Your task to perform on an android device: Clear the cart on target. Search for lenovo thinkpad on target, select the first entry, and add it to the cart. Image 0: 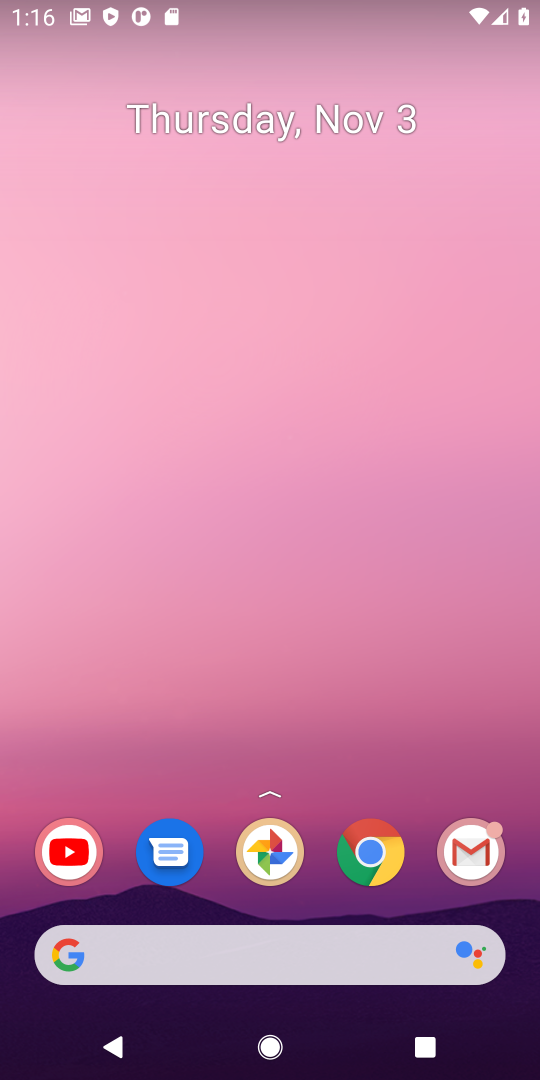
Step 0: click (372, 851)
Your task to perform on an android device: Clear the cart on target. Search for lenovo thinkpad on target, select the first entry, and add it to the cart. Image 1: 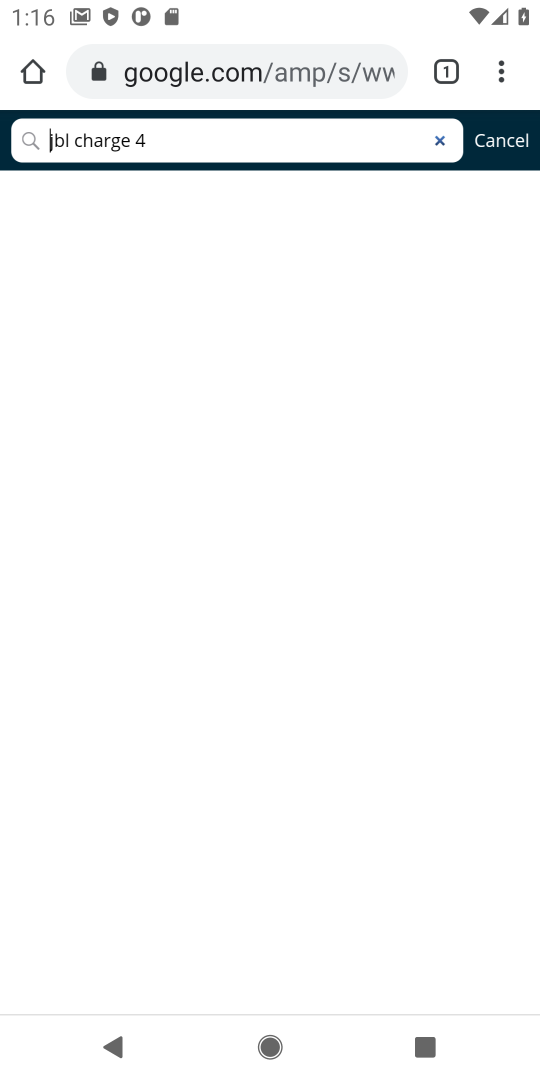
Step 1: click (209, 81)
Your task to perform on an android device: Clear the cart on target. Search for lenovo thinkpad on target, select the first entry, and add it to the cart. Image 2: 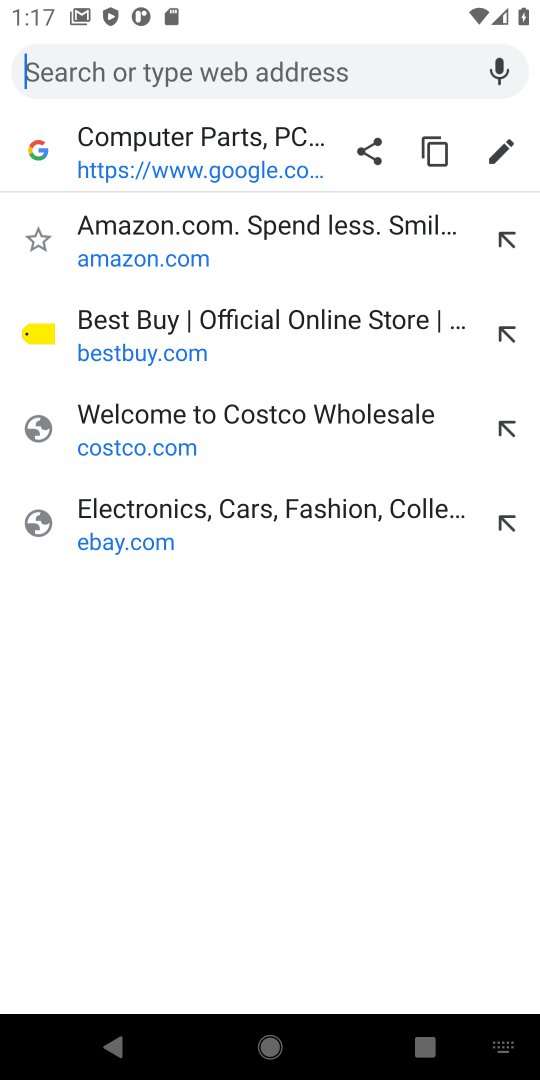
Step 2: type "target.com"
Your task to perform on an android device: Clear the cart on target. Search for lenovo thinkpad on target, select the first entry, and add it to the cart. Image 3: 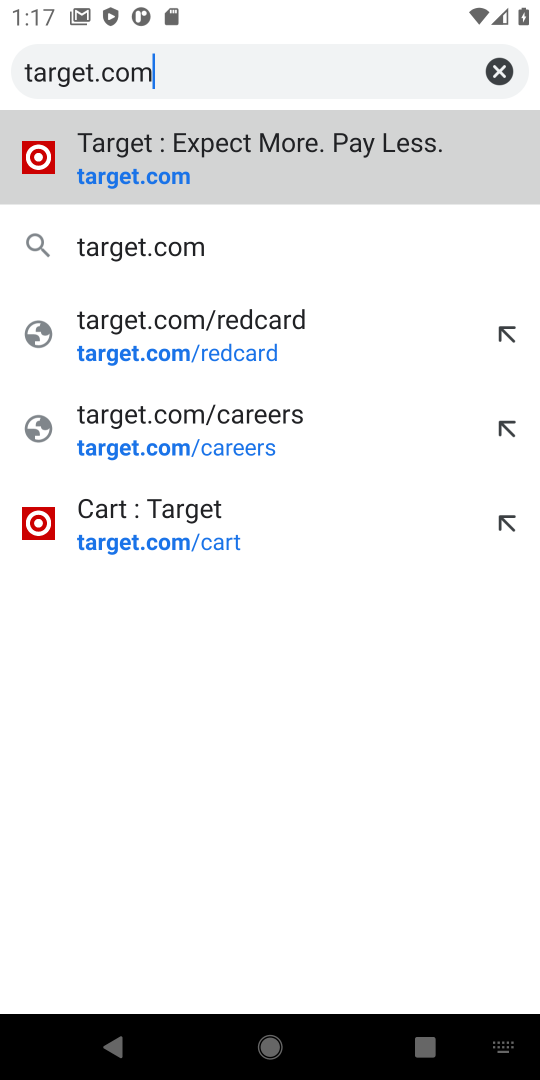
Step 3: click (150, 180)
Your task to perform on an android device: Clear the cart on target. Search for lenovo thinkpad on target, select the first entry, and add it to the cart. Image 4: 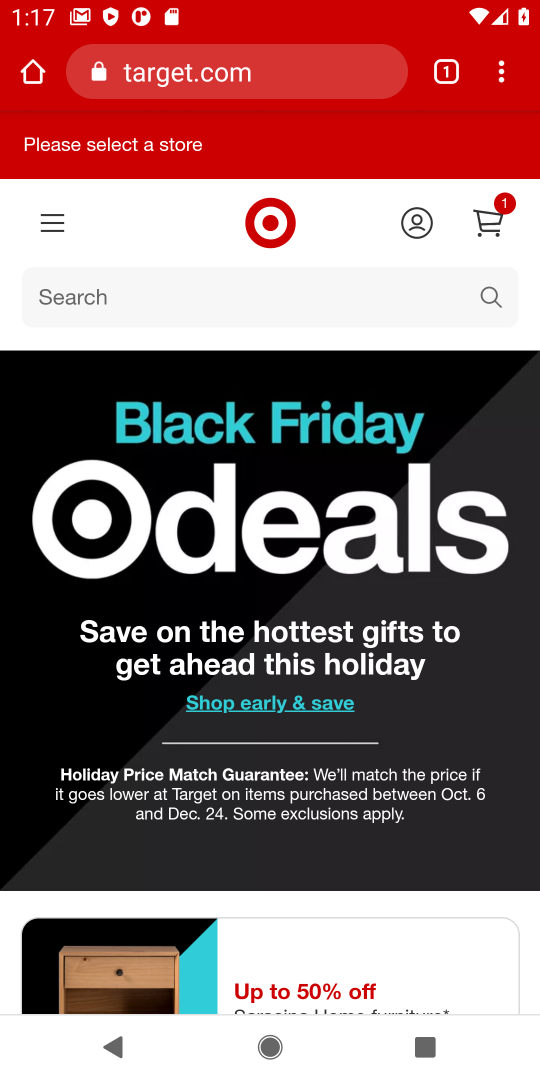
Step 4: click (486, 224)
Your task to perform on an android device: Clear the cart on target. Search for lenovo thinkpad on target, select the first entry, and add it to the cart. Image 5: 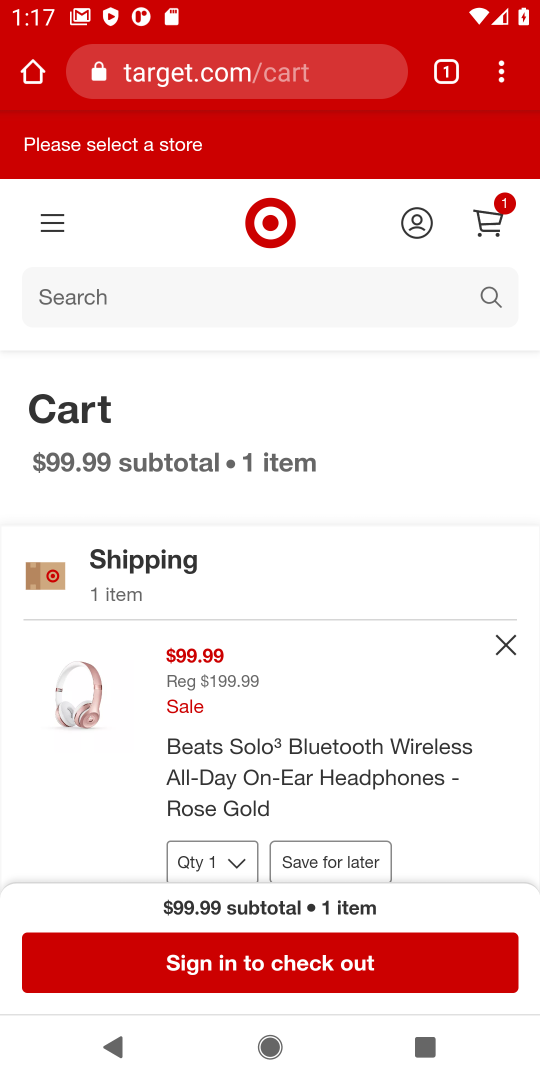
Step 5: click (505, 645)
Your task to perform on an android device: Clear the cart on target. Search for lenovo thinkpad on target, select the first entry, and add it to the cart. Image 6: 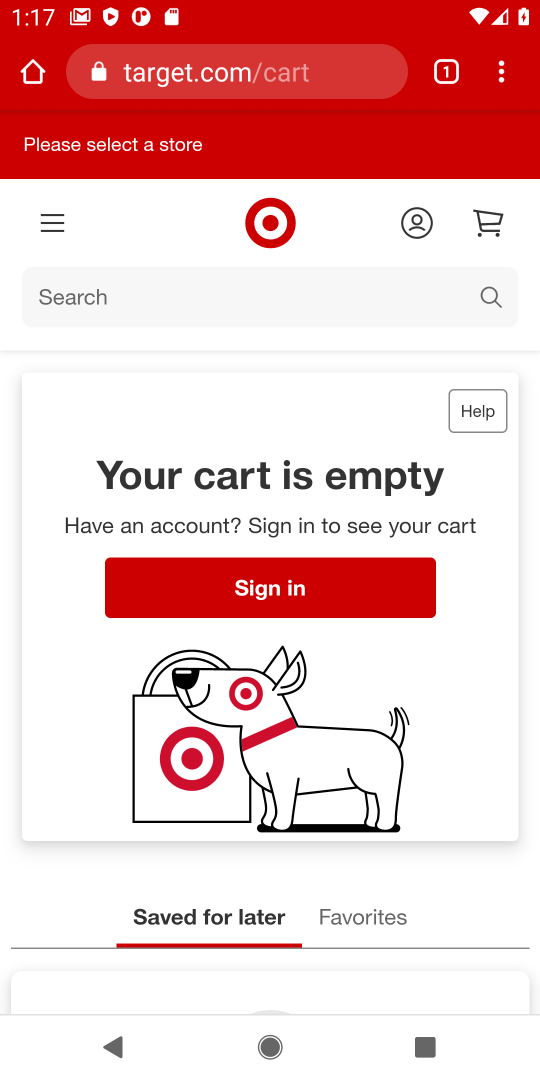
Step 6: click (439, 301)
Your task to perform on an android device: Clear the cart on target. Search for lenovo thinkpad on target, select the first entry, and add it to the cart. Image 7: 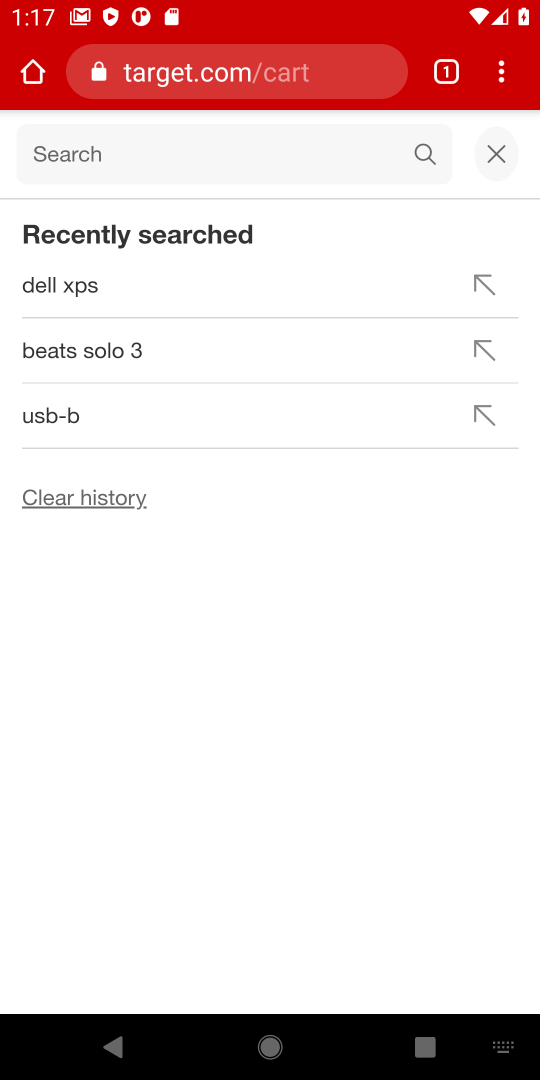
Step 7: type "lenovo thinkpad"
Your task to perform on an android device: Clear the cart on target. Search for lenovo thinkpad on target, select the first entry, and add it to the cart. Image 8: 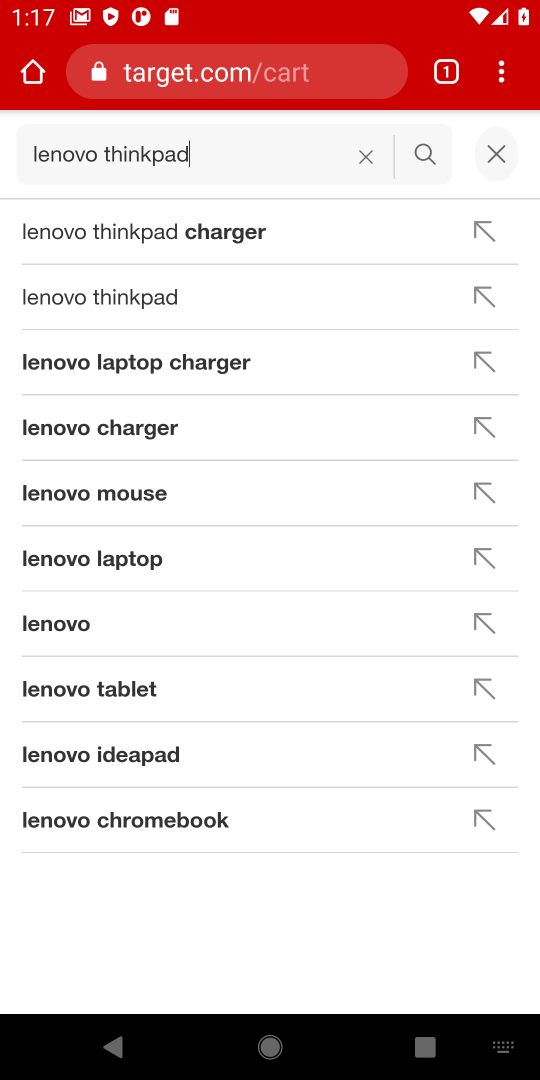
Step 8: click (139, 295)
Your task to perform on an android device: Clear the cart on target. Search for lenovo thinkpad on target, select the first entry, and add it to the cart. Image 9: 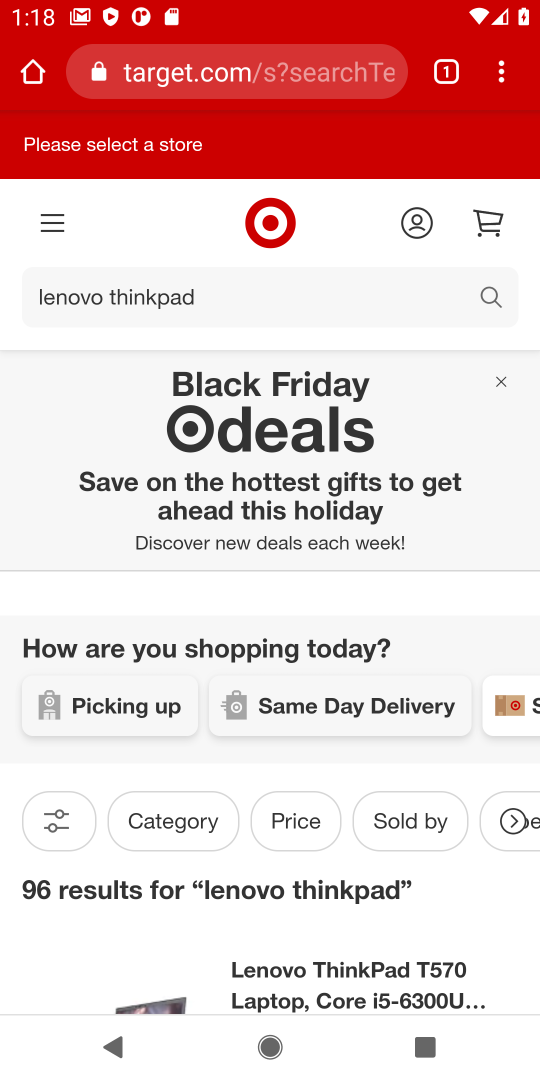
Step 9: drag from (305, 607) to (303, 385)
Your task to perform on an android device: Clear the cart on target. Search for lenovo thinkpad on target, select the first entry, and add it to the cart. Image 10: 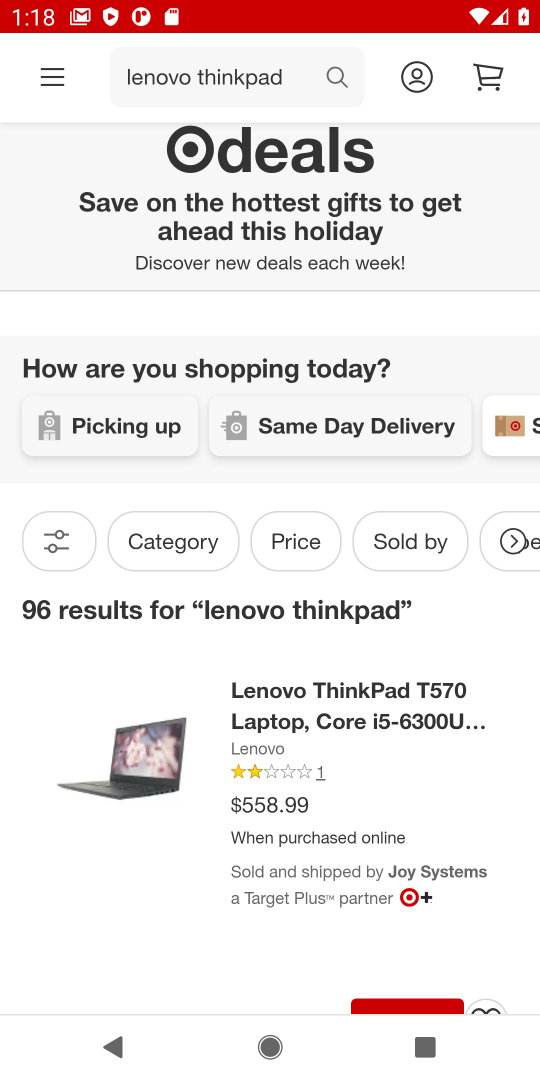
Step 10: click (243, 787)
Your task to perform on an android device: Clear the cart on target. Search for lenovo thinkpad on target, select the first entry, and add it to the cart. Image 11: 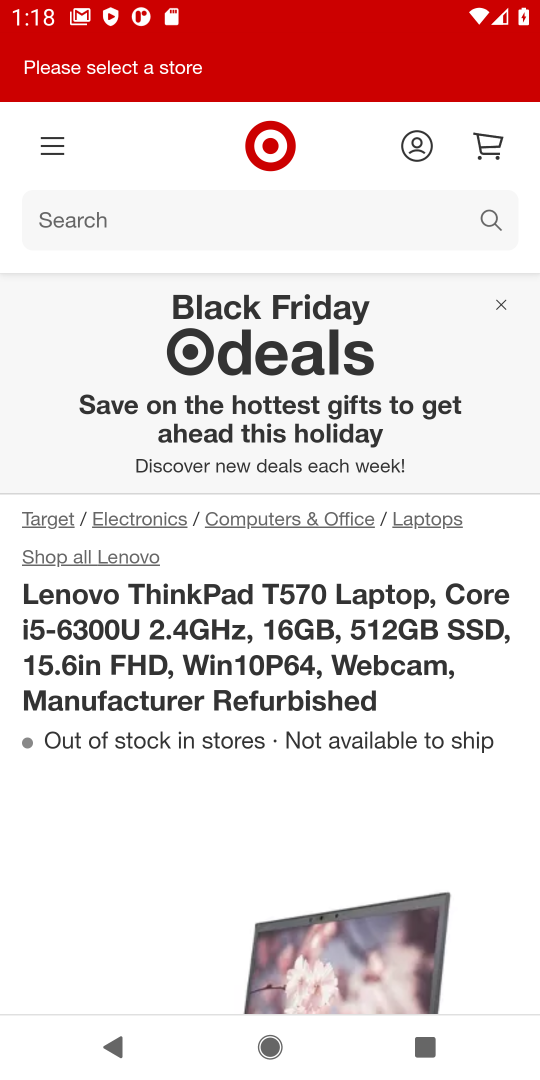
Step 11: drag from (257, 663) to (277, 361)
Your task to perform on an android device: Clear the cart on target. Search for lenovo thinkpad on target, select the first entry, and add it to the cart. Image 12: 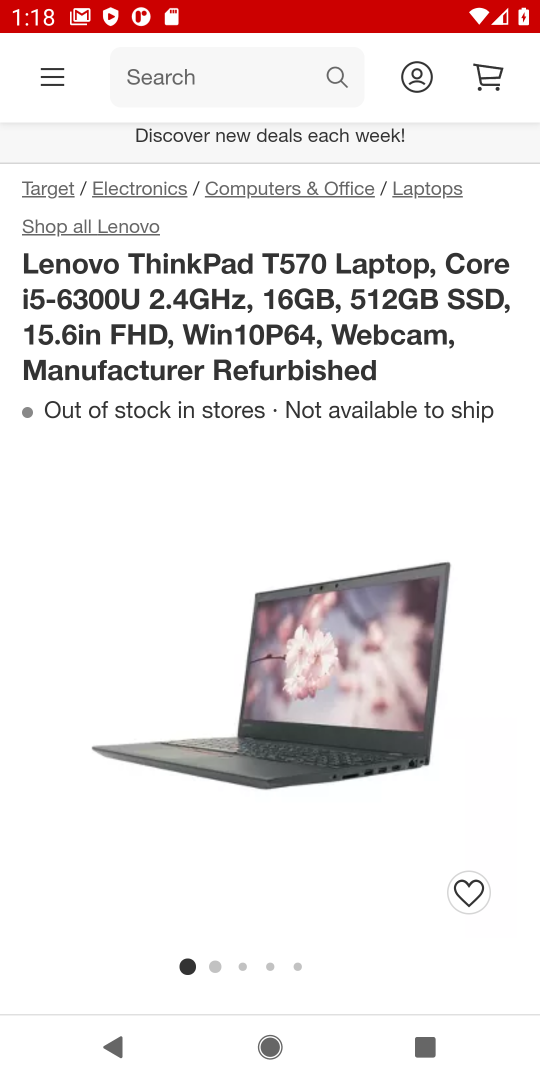
Step 12: drag from (272, 490) to (286, 303)
Your task to perform on an android device: Clear the cart on target. Search for lenovo thinkpad on target, select the first entry, and add it to the cart. Image 13: 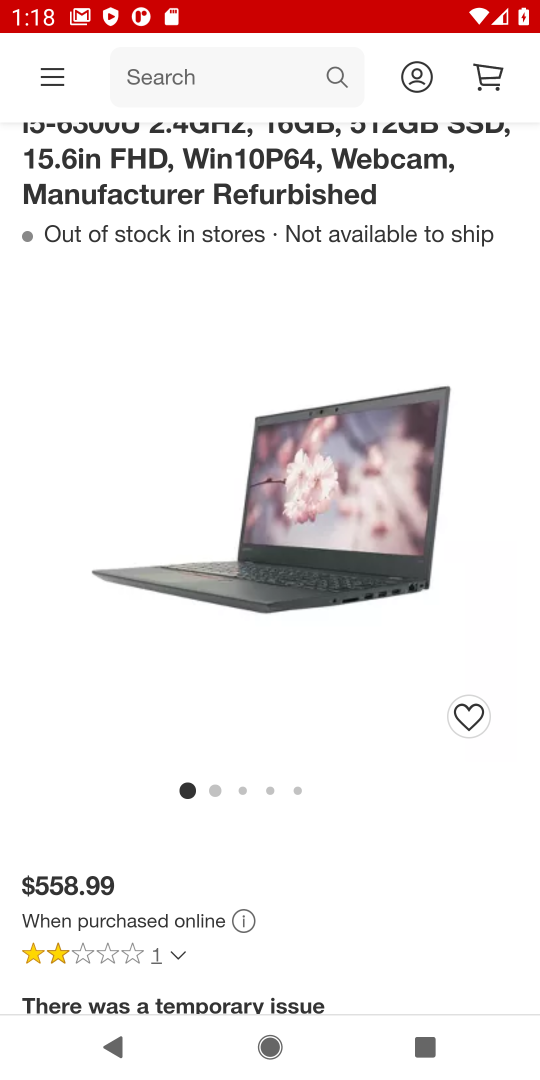
Step 13: drag from (256, 779) to (284, 354)
Your task to perform on an android device: Clear the cart on target. Search for lenovo thinkpad on target, select the first entry, and add it to the cart. Image 14: 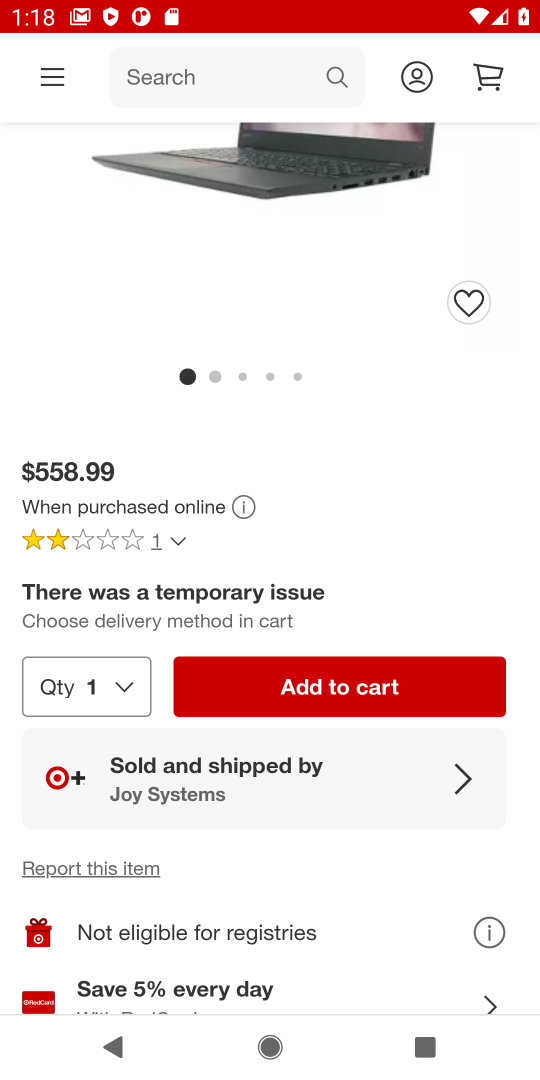
Step 14: click (366, 697)
Your task to perform on an android device: Clear the cart on target. Search for lenovo thinkpad on target, select the first entry, and add it to the cart. Image 15: 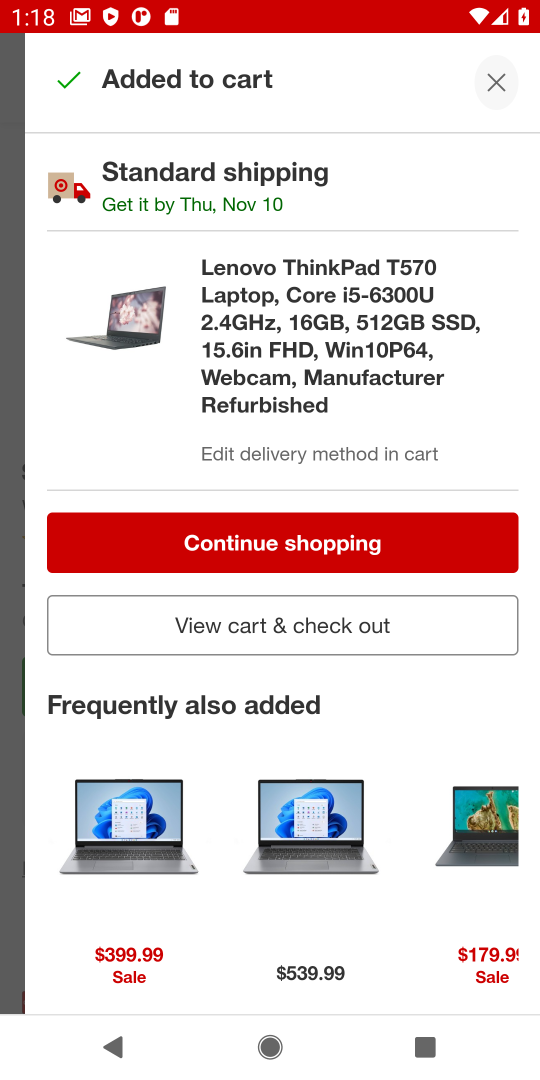
Step 15: task complete